Your task to perform on an android device: Search for vegetarian restaurants on Maps Image 0: 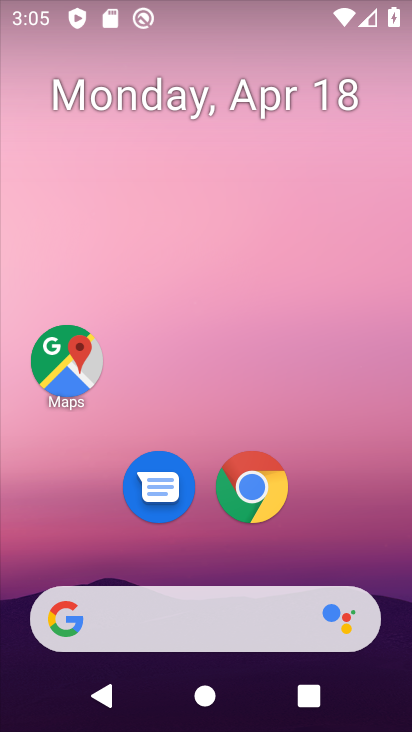
Step 0: drag from (335, 508) to (248, 21)
Your task to perform on an android device: Search for vegetarian restaurants on Maps Image 1: 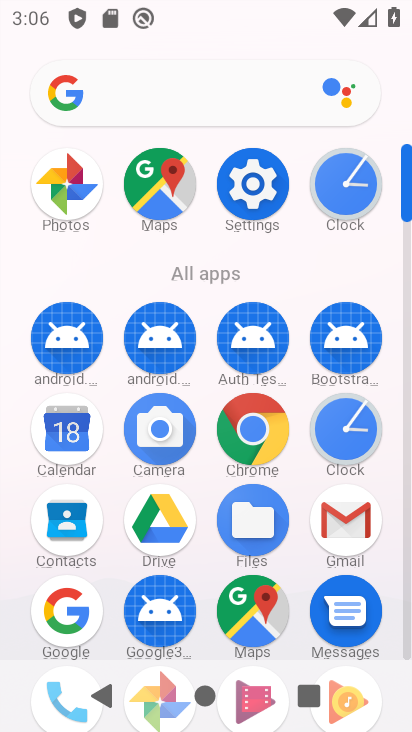
Step 1: click (251, 610)
Your task to perform on an android device: Search for vegetarian restaurants on Maps Image 2: 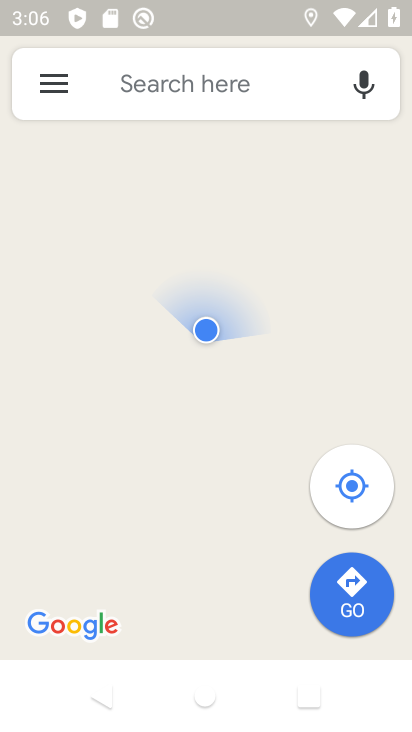
Step 2: click (266, 96)
Your task to perform on an android device: Search for vegetarian restaurants on Maps Image 3: 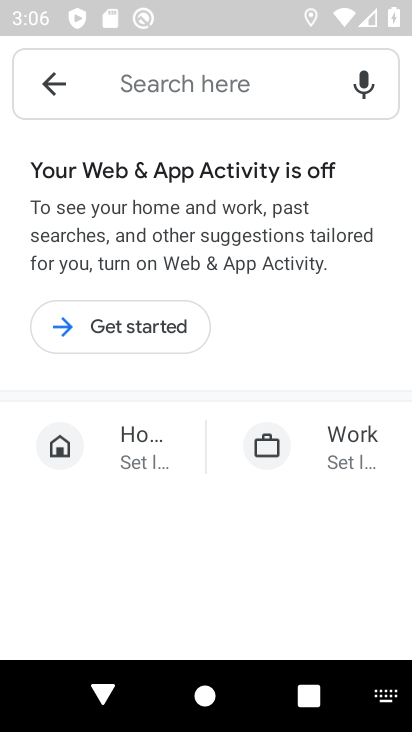
Step 3: type "vegetarian restaurants"
Your task to perform on an android device: Search for vegetarian restaurants on Maps Image 4: 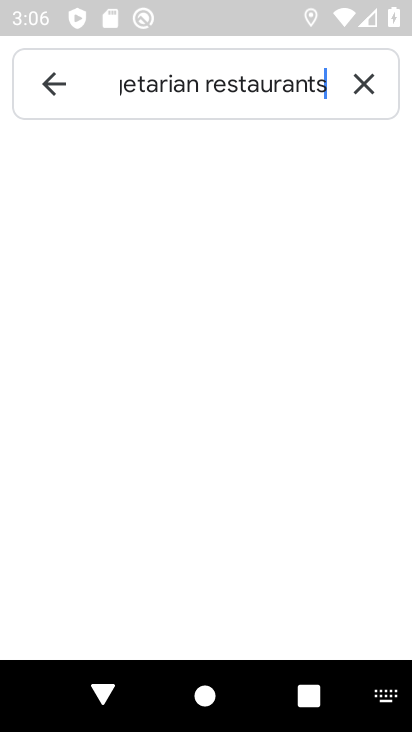
Step 4: type ""
Your task to perform on an android device: Search for vegetarian restaurants on Maps Image 5: 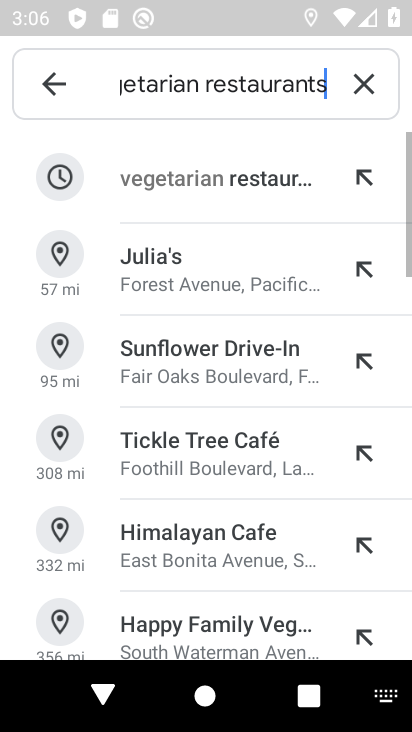
Step 5: click (177, 183)
Your task to perform on an android device: Search for vegetarian restaurants on Maps Image 6: 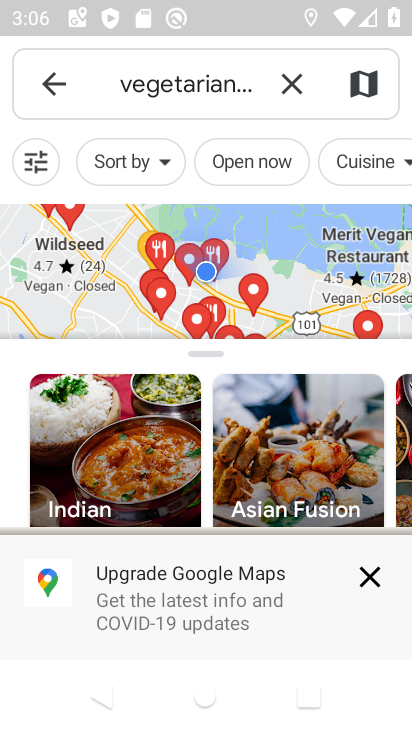
Step 6: task complete